Your task to perform on an android device: stop showing notifications on the lock screen Image 0: 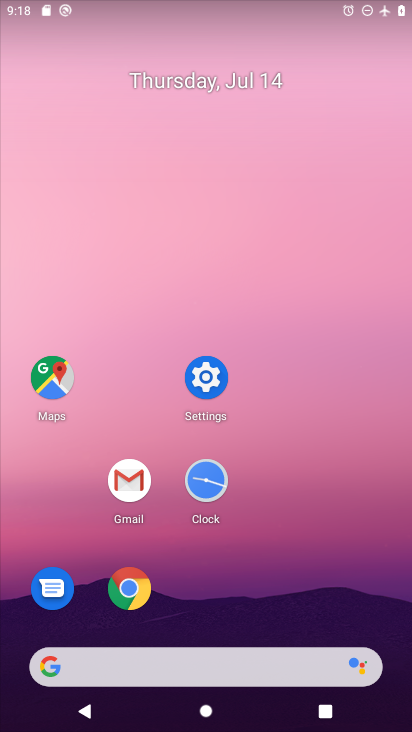
Step 0: drag from (400, 684) to (341, 238)
Your task to perform on an android device: stop showing notifications on the lock screen Image 1: 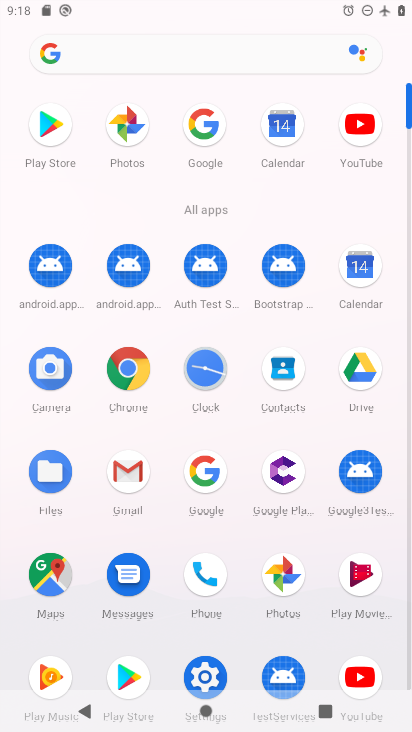
Step 1: click (207, 663)
Your task to perform on an android device: stop showing notifications on the lock screen Image 2: 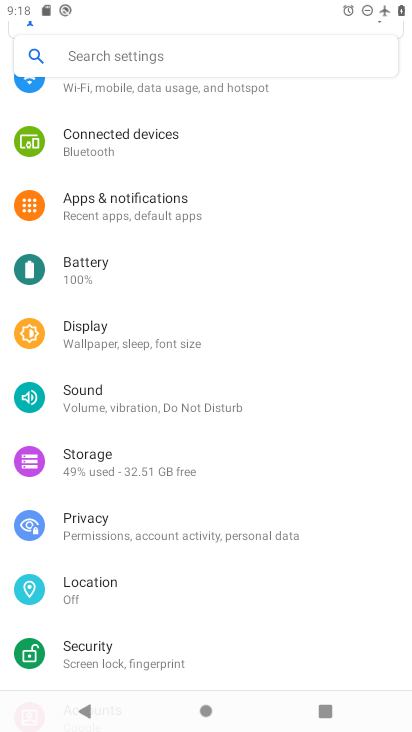
Step 2: click (122, 197)
Your task to perform on an android device: stop showing notifications on the lock screen Image 3: 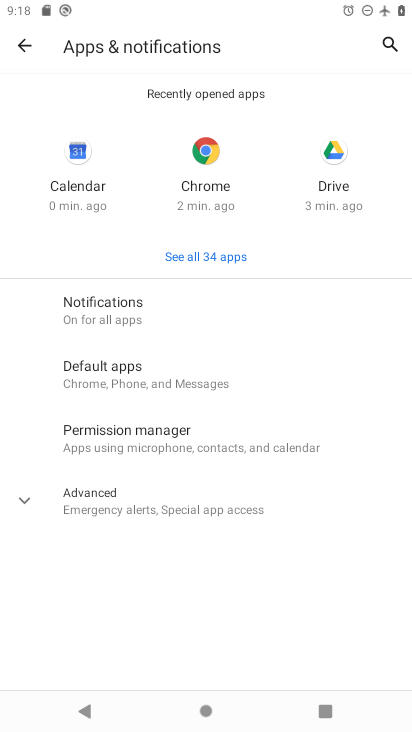
Step 3: click (107, 303)
Your task to perform on an android device: stop showing notifications on the lock screen Image 4: 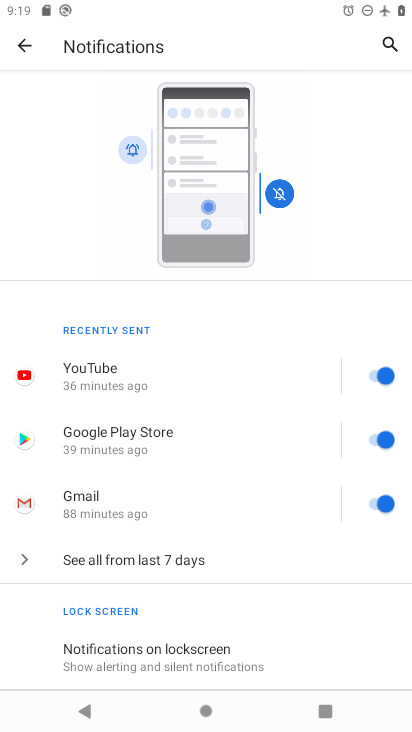
Step 4: click (123, 643)
Your task to perform on an android device: stop showing notifications on the lock screen Image 5: 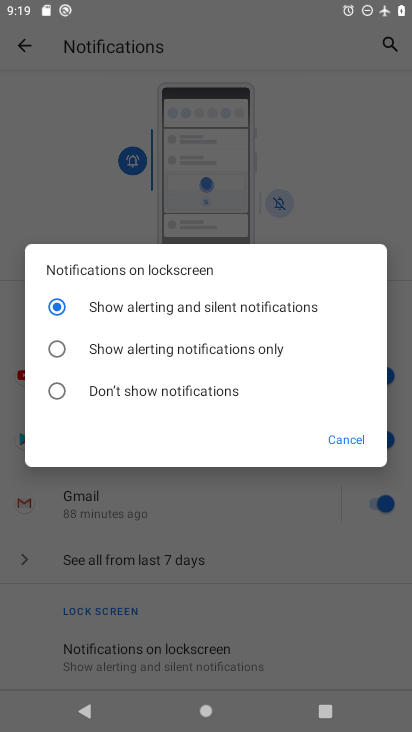
Step 5: click (81, 384)
Your task to perform on an android device: stop showing notifications on the lock screen Image 6: 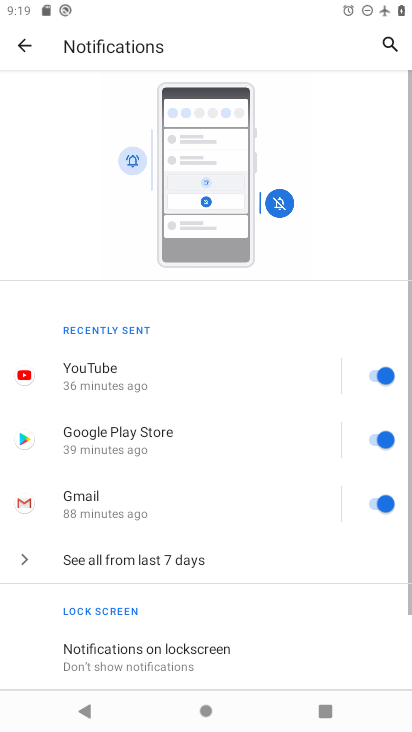
Step 6: task complete